Your task to perform on an android device: open device folders in google photos Image 0: 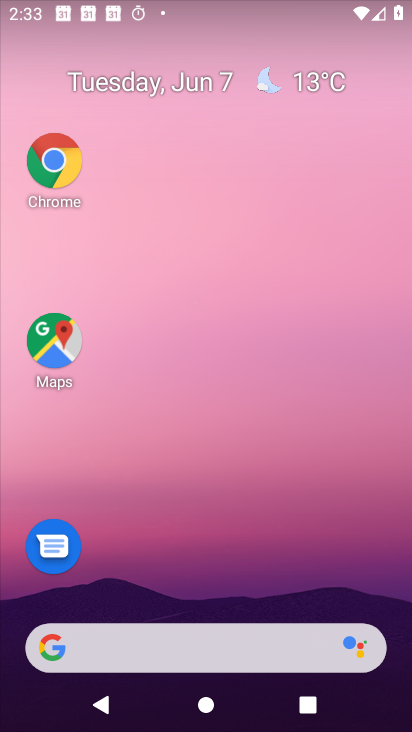
Step 0: drag from (187, 601) to (214, 98)
Your task to perform on an android device: open device folders in google photos Image 1: 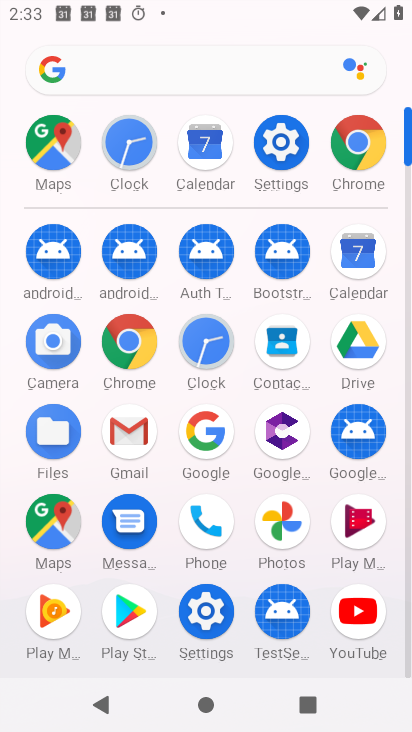
Step 1: click (272, 522)
Your task to perform on an android device: open device folders in google photos Image 2: 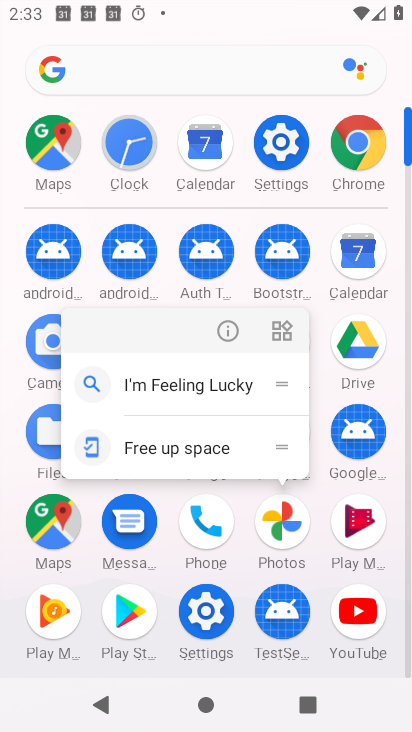
Step 2: click (218, 337)
Your task to perform on an android device: open device folders in google photos Image 3: 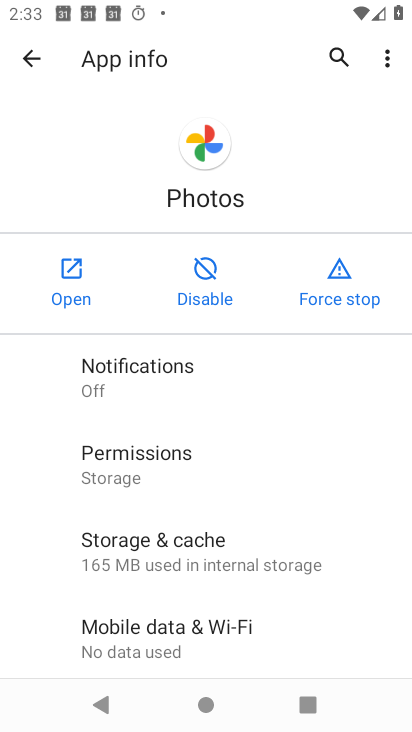
Step 3: click (60, 268)
Your task to perform on an android device: open device folders in google photos Image 4: 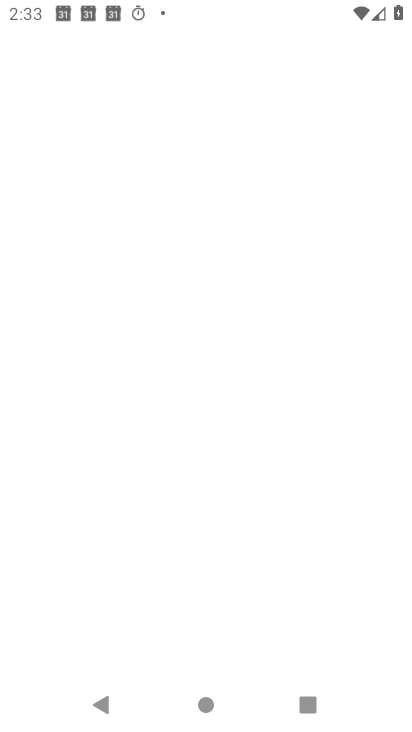
Step 4: drag from (235, 561) to (295, 131)
Your task to perform on an android device: open device folders in google photos Image 5: 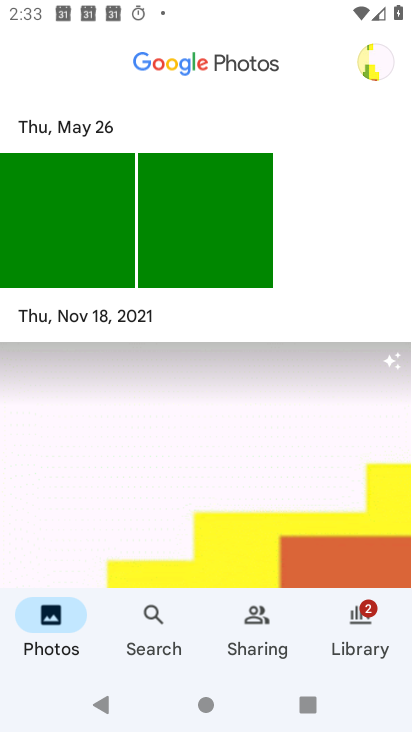
Step 5: drag from (235, 486) to (261, 331)
Your task to perform on an android device: open device folders in google photos Image 6: 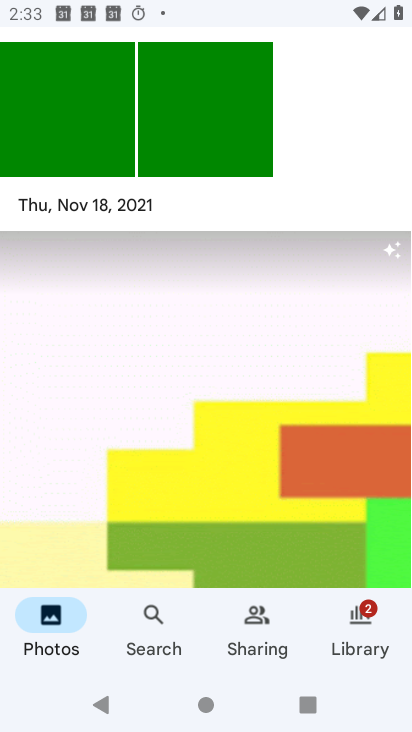
Step 6: click (360, 623)
Your task to perform on an android device: open device folders in google photos Image 7: 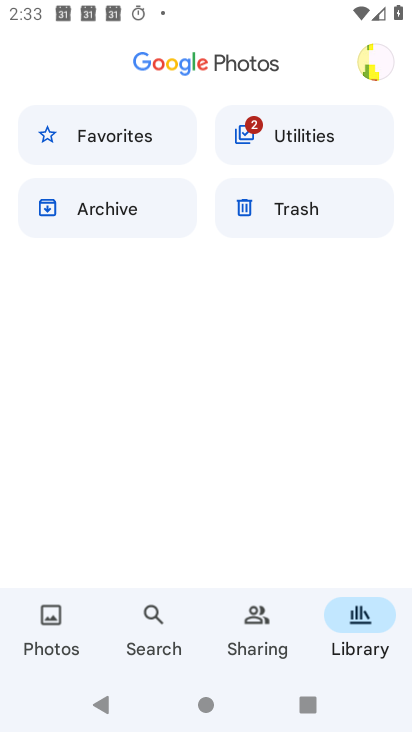
Step 7: task complete